Your task to perform on an android device: Open settings on Google Maps Image 0: 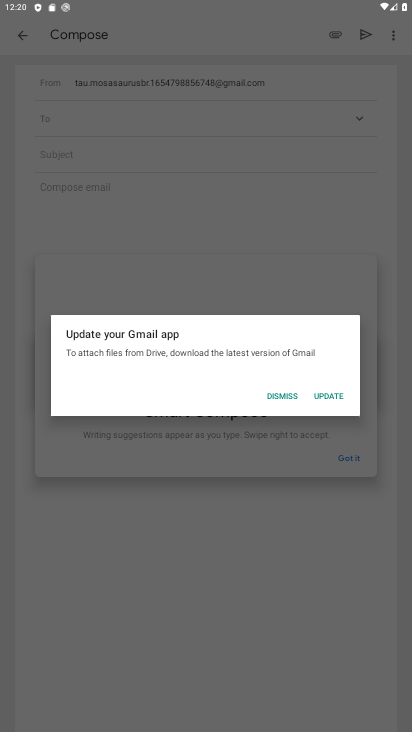
Step 0: press home button
Your task to perform on an android device: Open settings on Google Maps Image 1: 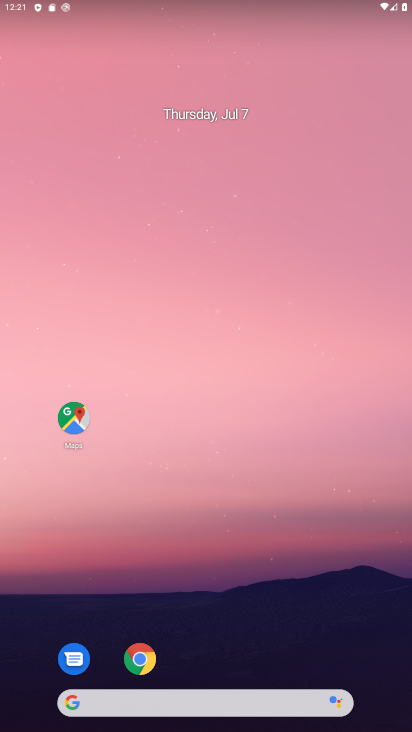
Step 1: click (68, 414)
Your task to perform on an android device: Open settings on Google Maps Image 2: 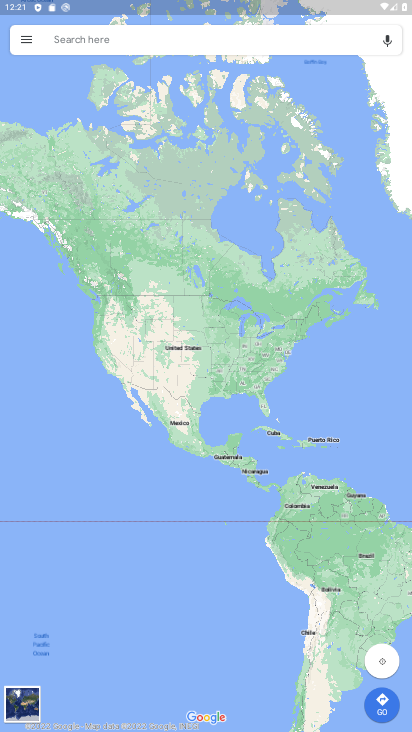
Step 2: click (20, 46)
Your task to perform on an android device: Open settings on Google Maps Image 3: 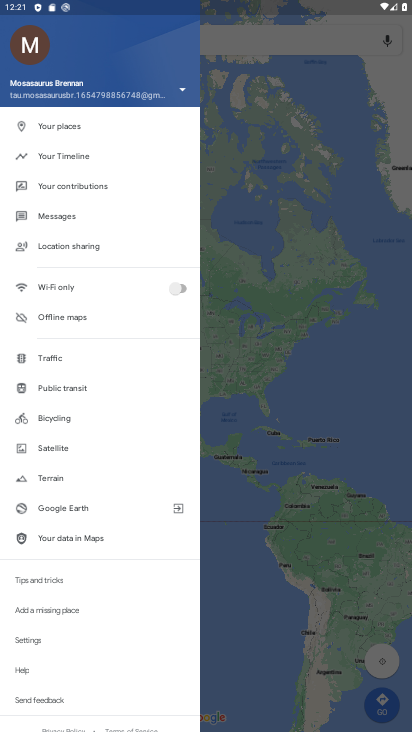
Step 3: click (28, 640)
Your task to perform on an android device: Open settings on Google Maps Image 4: 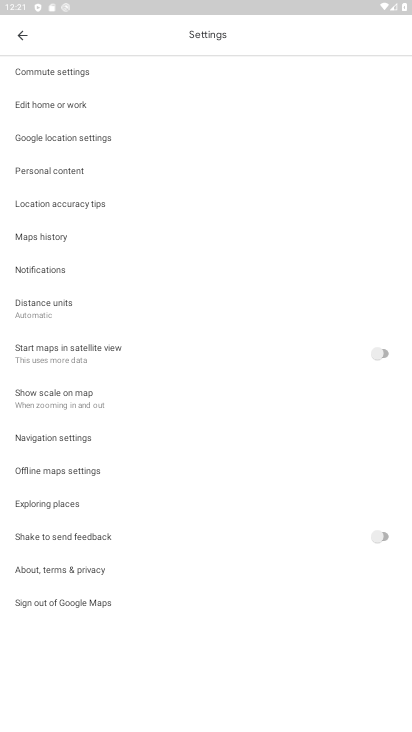
Step 4: task complete